Your task to perform on an android device: Open Google Chrome Image 0: 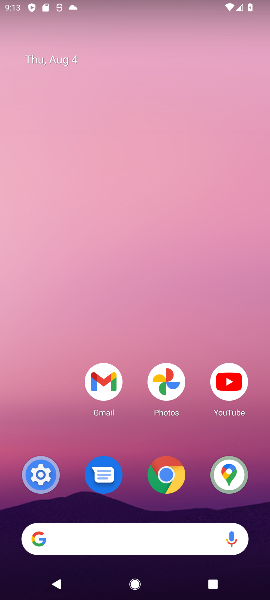
Step 0: drag from (122, 481) to (144, 121)
Your task to perform on an android device: Open Google Chrome Image 1: 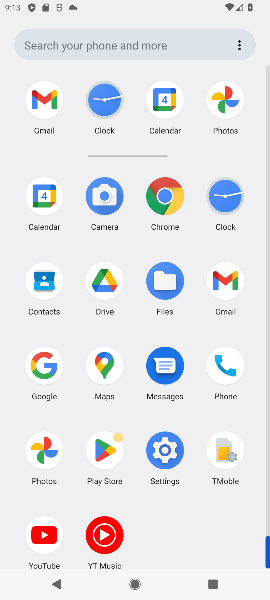
Step 1: drag from (140, 494) to (111, 185)
Your task to perform on an android device: Open Google Chrome Image 2: 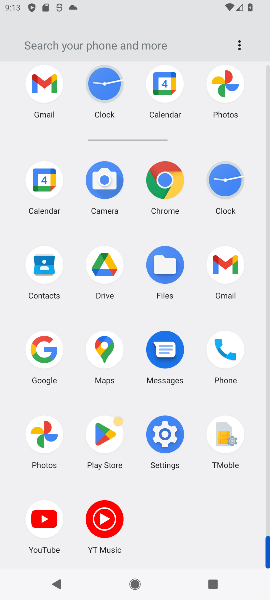
Step 2: click (160, 181)
Your task to perform on an android device: Open Google Chrome Image 3: 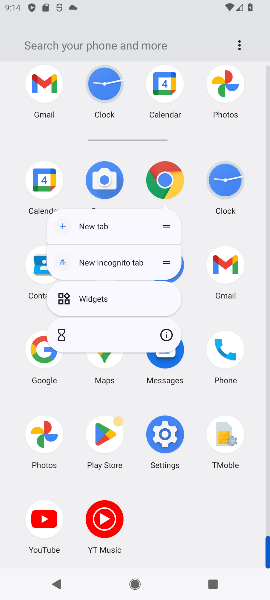
Step 3: click (168, 332)
Your task to perform on an android device: Open Google Chrome Image 4: 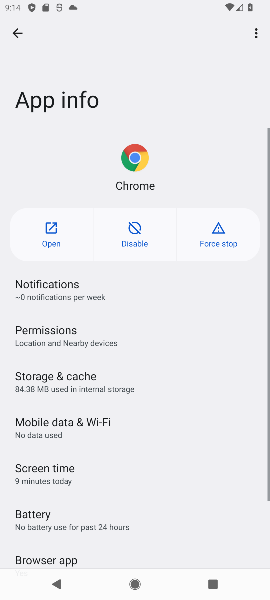
Step 4: click (48, 239)
Your task to perform on an android device: Open Google Chrome Image 5: 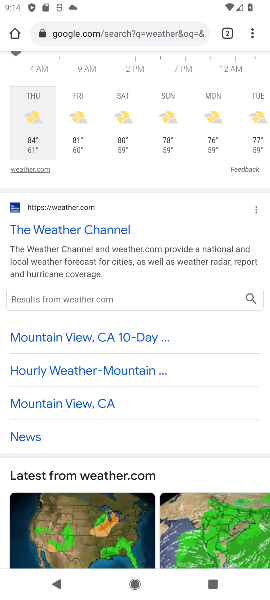
Step 5: task complete